Your task to perform on an android device: Open privacy settings Image 0: 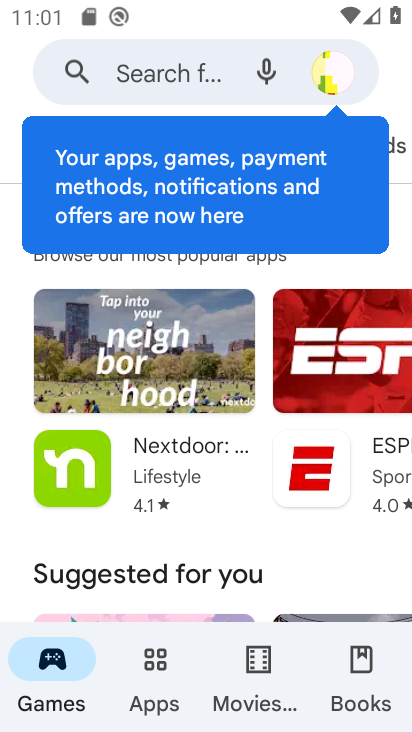
Step 0: press home button
Your task to perform on an android device: Open privacy settings Image 1: 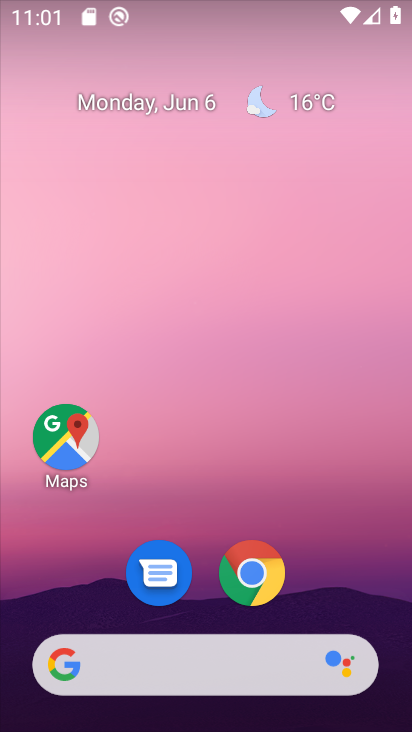
Step 1: drag from (144, 728) to (201, 58)
Your task to perform on an android device: Open privacy settings Image 2: 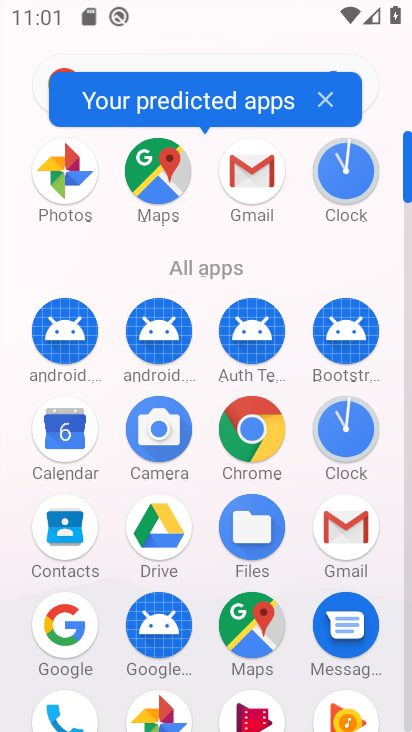
Step 2: drag from (198, 526) to (196, 273)
Your task to perform on an android device: Open privacy settings Image 3: 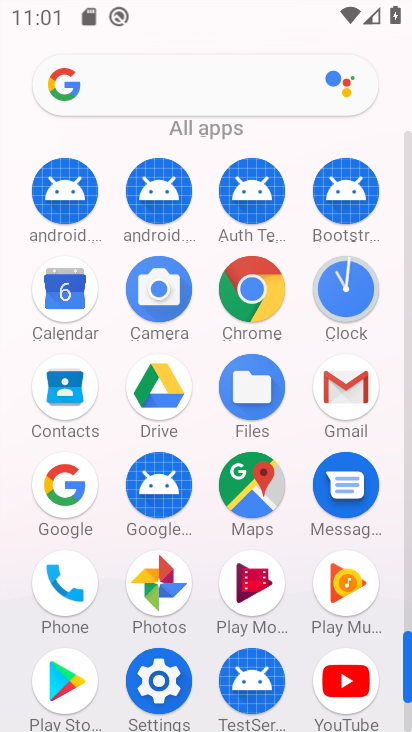
Step 3: click (143, 675)
Your task to perform on an android device: Open privacy settings Image 4: 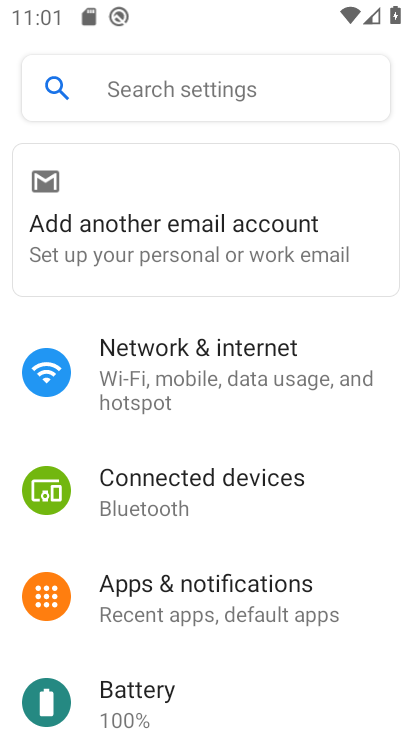
Step 4: drag from (218, 531) to (210, 271)
Your task to perform on an android device: Open privacy settings Image 5: 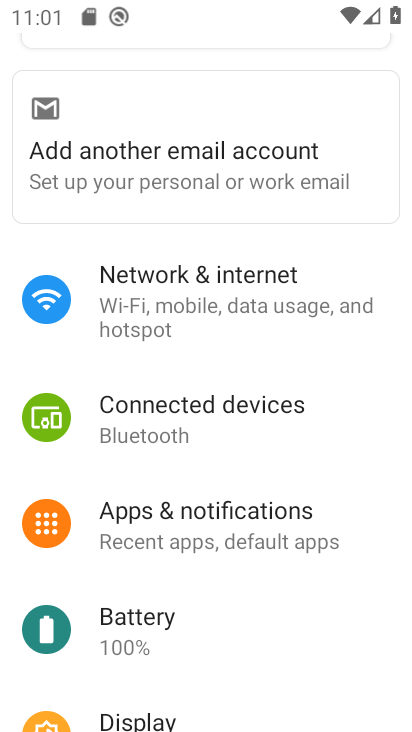
Step 5: drag from (214, 648) to (232, 239)
Your task to perform on an android device: Open privacy settings Image 6: 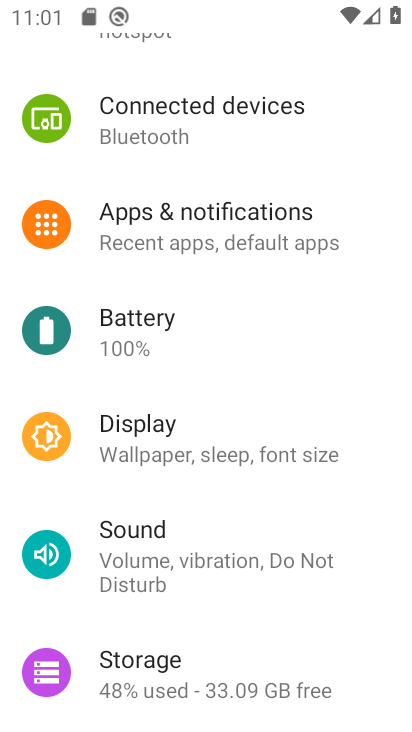
Step 6: drag from (225, 601) to (192, 304)
Your task to perform on an android device: Open privacy settings Image 7: 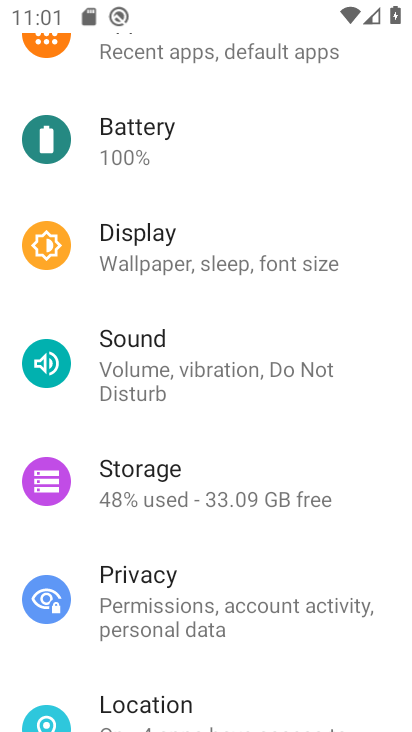
Step 7: click (177, 588)
Your task to perform on an android device: Open privacy settings Image 8: 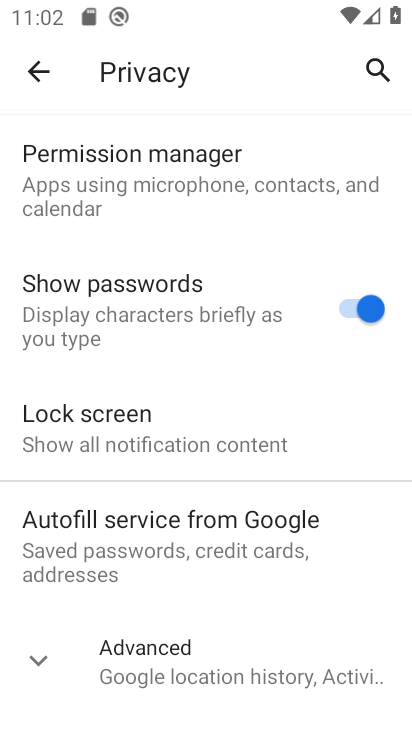
Step 8: task complete